Your task to perform on an android device: turn off airplane mode Image 0: 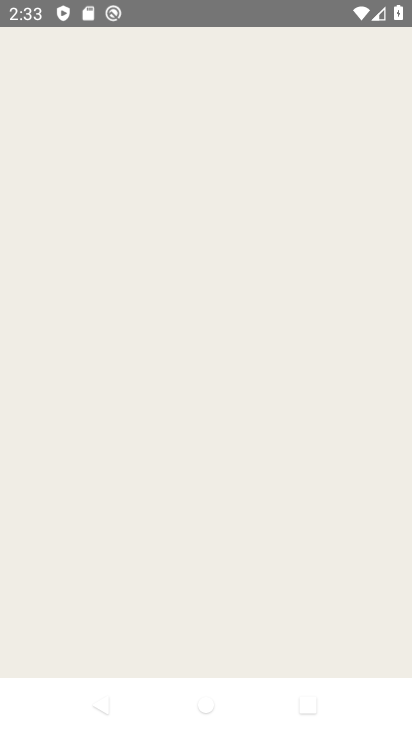
Step 0: click (261, 262)
Your task to perform on an android device: turn off airplane mode Image 1: 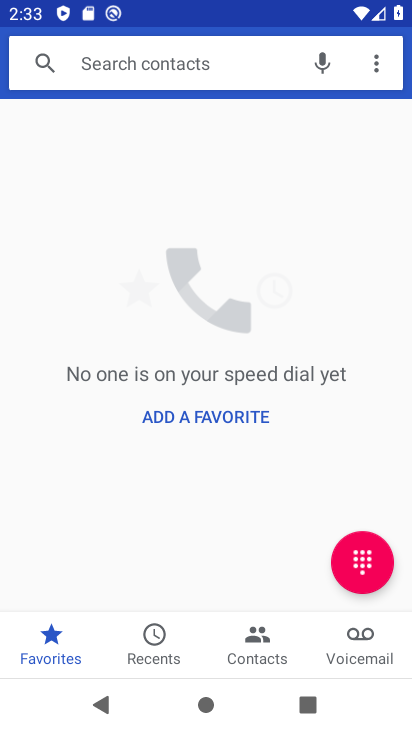
Step 1: press home button
Your task to perform on an android device: turn off airplane mode Image 2: 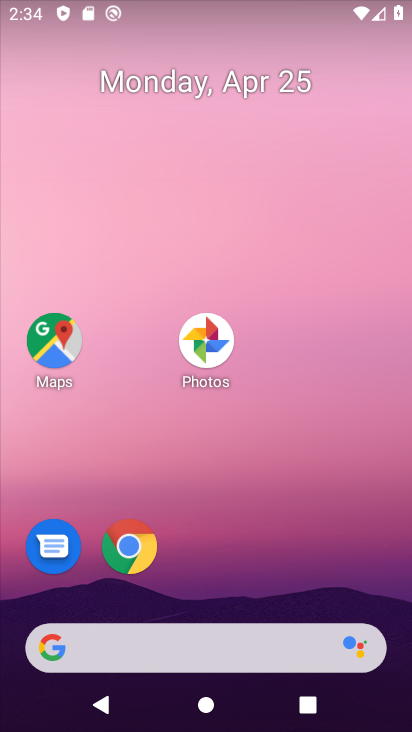
Step 2: drag from (276, 512) to (277, 302)
Your task to perform on an android device: turn off airplane mode Image 3: 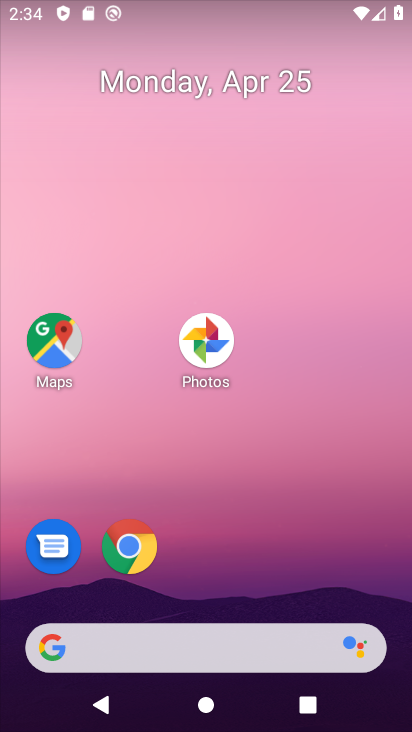
Step 3: drag from (256, 580) to (289, 209)
Your task to perform on an android device: turn off airplane mode Image 4: 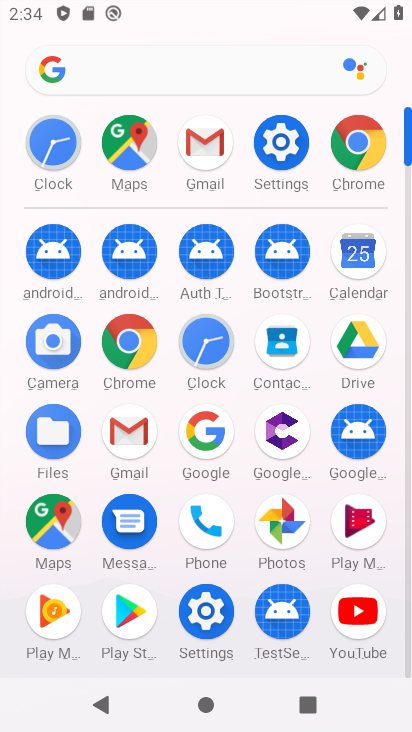
Step 4: click (283, 137)
Your task to perform on an android device: turn off airplane mode Image 5: 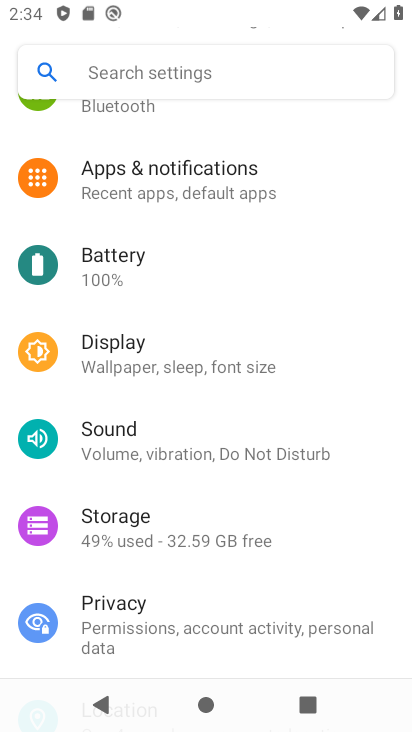
Step 5: drag from (183, 140) to (129, 565)
Your task to perform on an android device: turn off airplane mode Image 6: 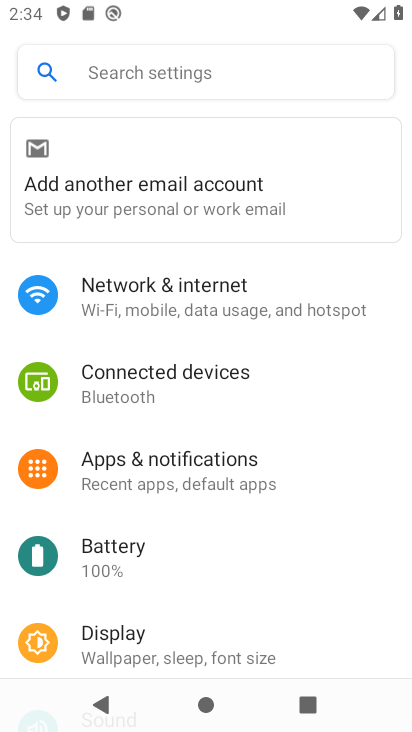
Step 6: click (145, 300)
Your task to perform on an android device: turn off airplane mode Image 7: 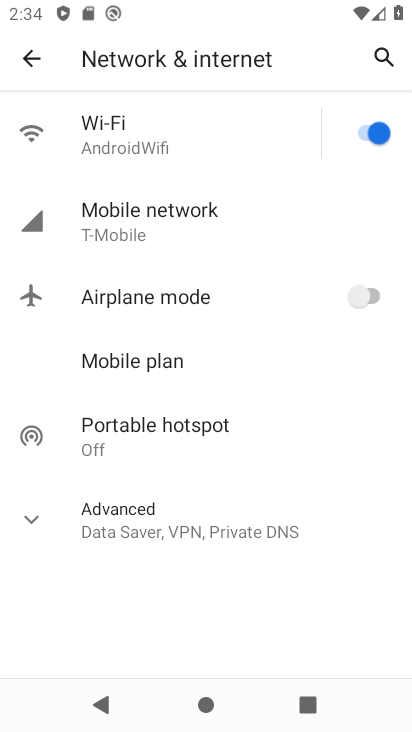
Step 7: click (142, 290)
Your task to perform on an android device: turn off airplane mode Image 8: 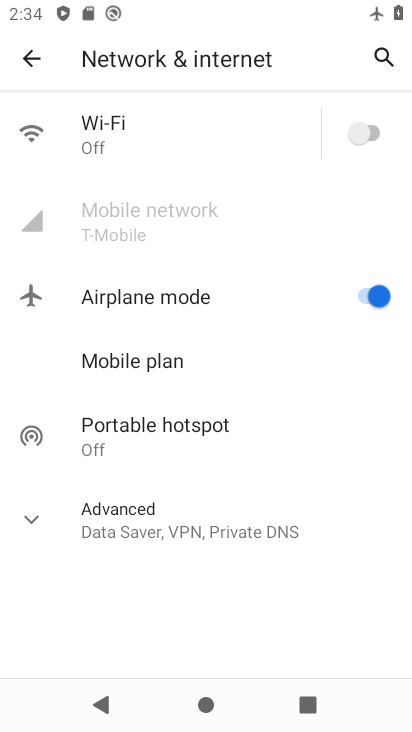
Step 8: click (372, 298)
Your task to perform on an android device: turn off airplane mode Image 9: 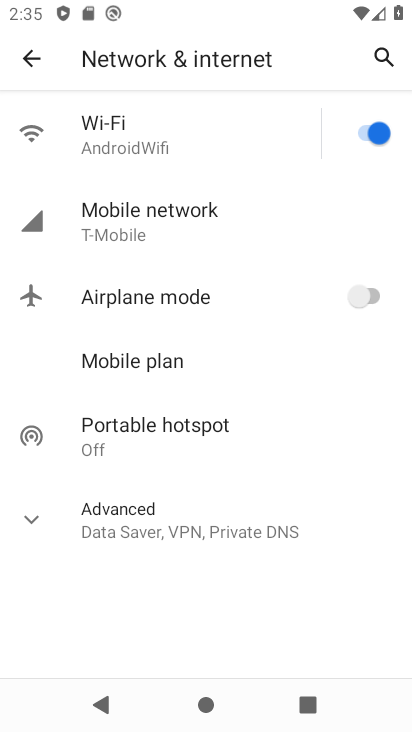
Step 9: task complete